Your task to perform on an android device: Go to display settings Image 0: 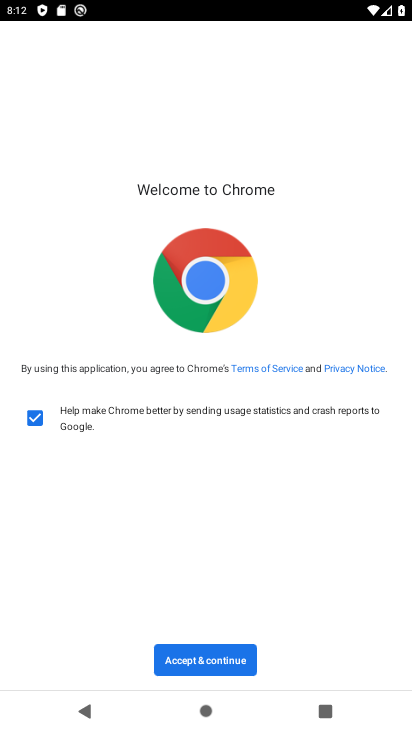
Step 0: press home button
Your task to perform on an android device: Go to display settings Image 1: 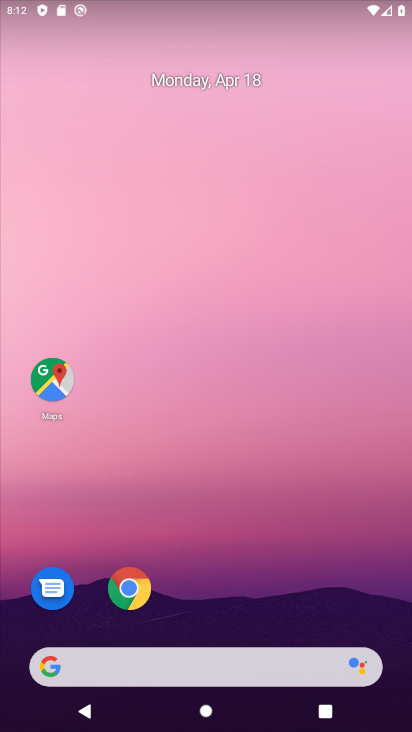
Step 1: drag from (230, 379) to (208, 90)
Your task to perform on an android device: Go to display settings Image 2: 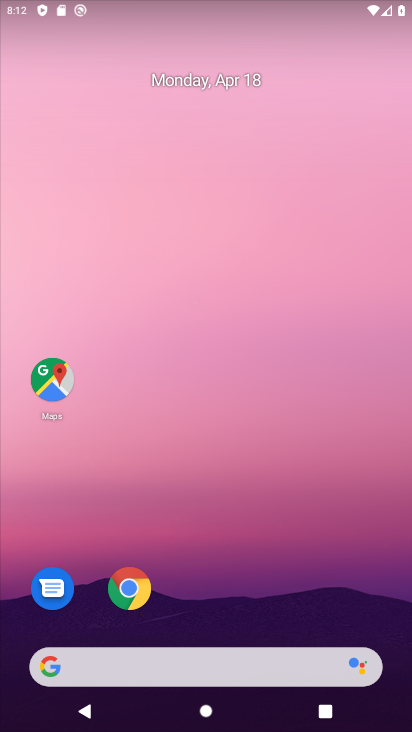
Step 2: drag from (256, 588) to (248, 62)
Your task to perform on an android device: Go to display settings Image 3: 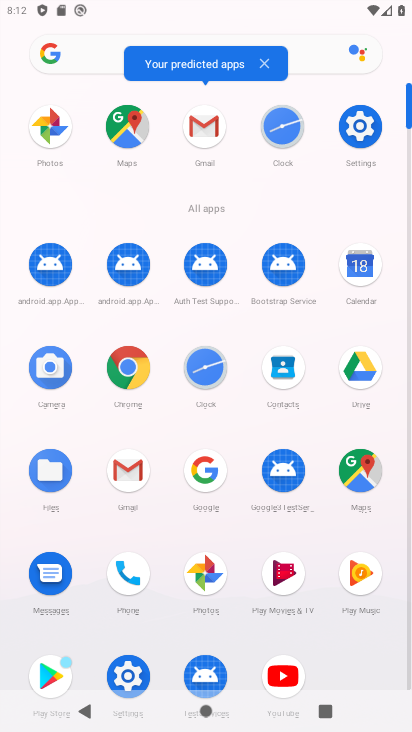
Step 3: click (363, 130)
Your task to perform on an android device: Go to display settings Image 4: 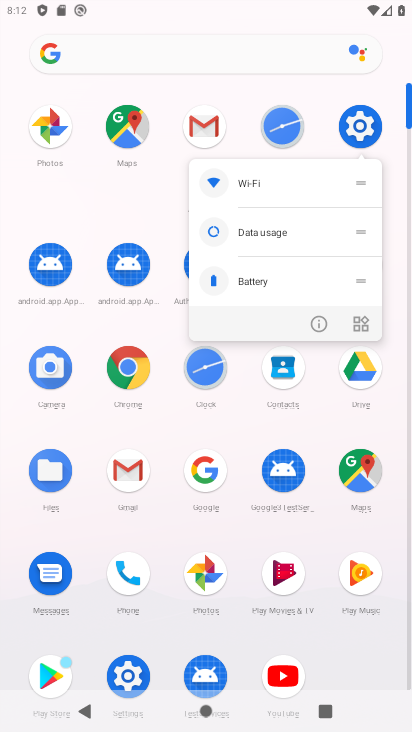
Step 4: click (365, 131)
Your task to perform on an android device: Go to display settings Image 5: 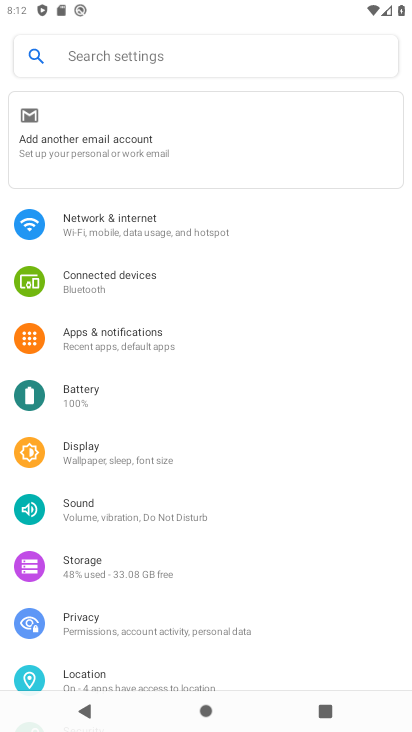
Step 5: click (105, 448)
Your task to perform on an android device: Go to display settings Image 6: 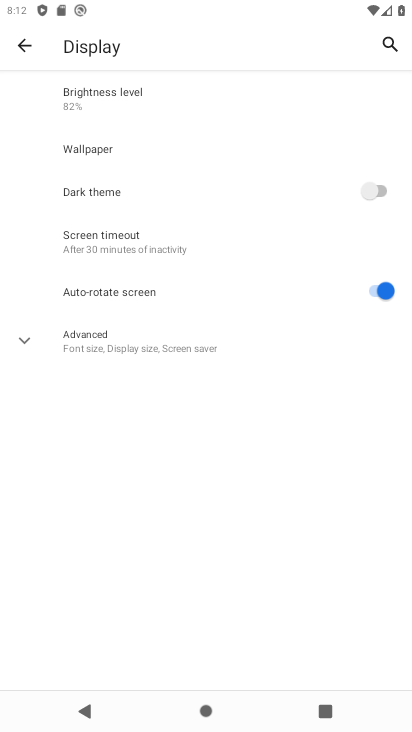
Step 6: click (157, 354)
Your task to perform on an android device: Go to display settings Image 7: 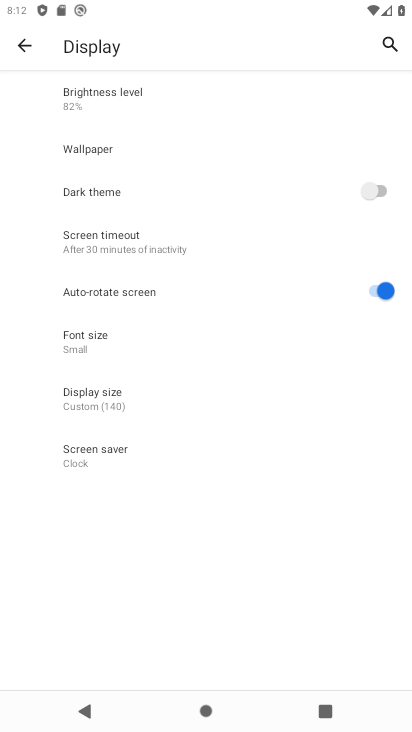
Step 7: task complete